Your task to perform on an android device: delete browsing data in the chrome app Image 0: 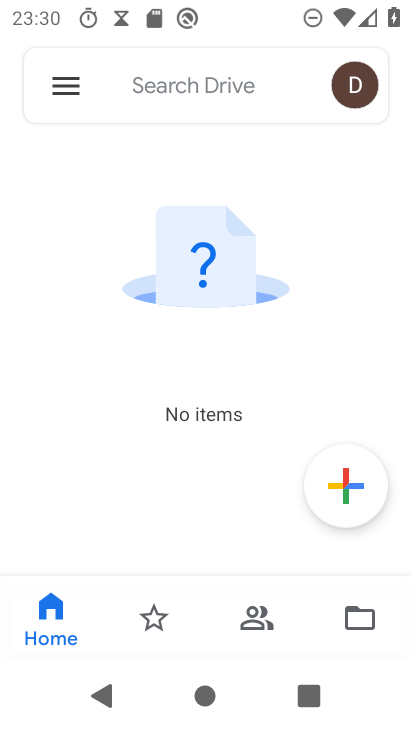
Step 0: press home button
Your task to perform on an android device: delete browsing data in the chrome app Image 1: 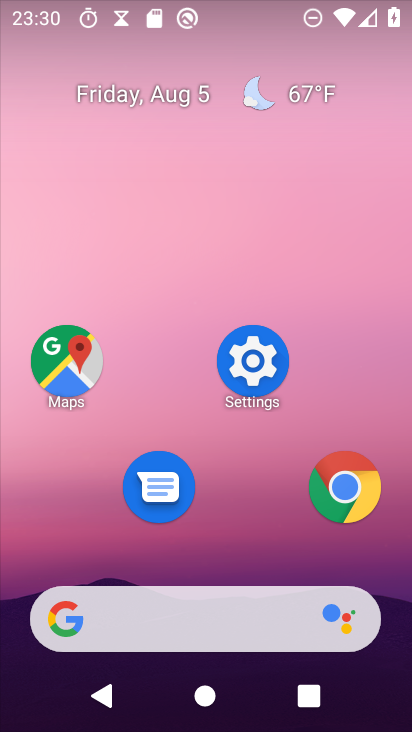
Step 1: click (341, 491)
Your task to perform on an android device: delete browsing data in the chrome app Image 2: 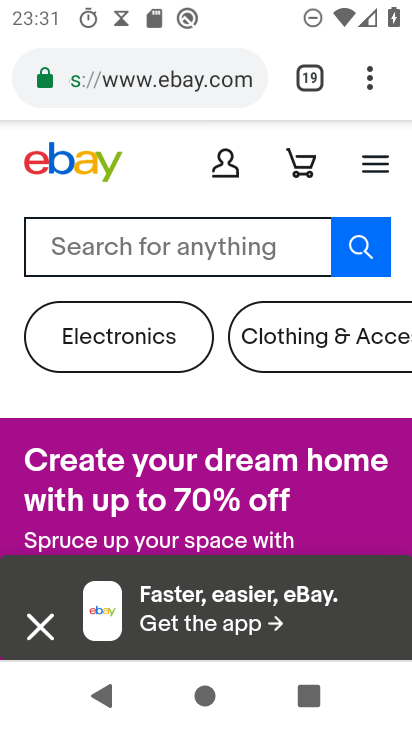
Step 2: drag from (367, 80) to (237, 552)
Your task to perform on an android device: delete browsing data in the chrome app Image 3: 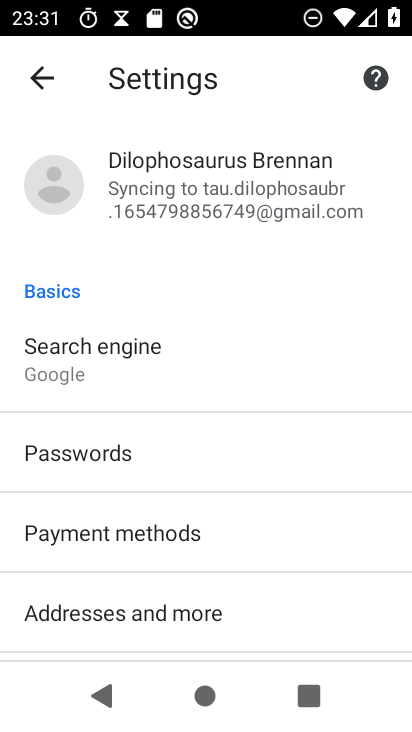
Step 3: drag from (274, 587) to (377, 283)
Your task to perform on an android device: delete browsing data in the chrome app Image 4: 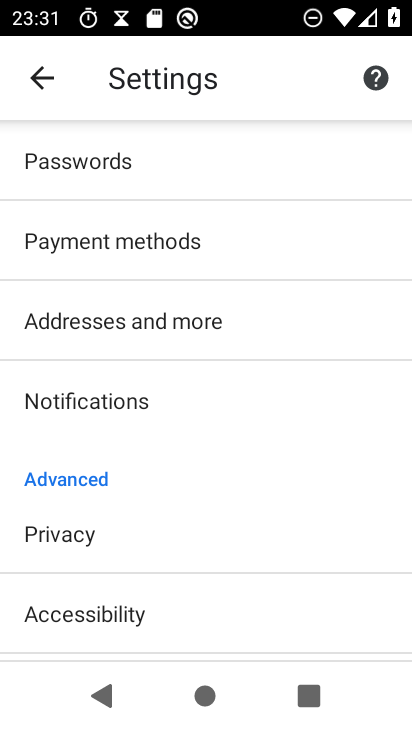
Step 4: click (96, 530)
Your task to perform on an android device: delete browsing data in the chrome app Image 5: 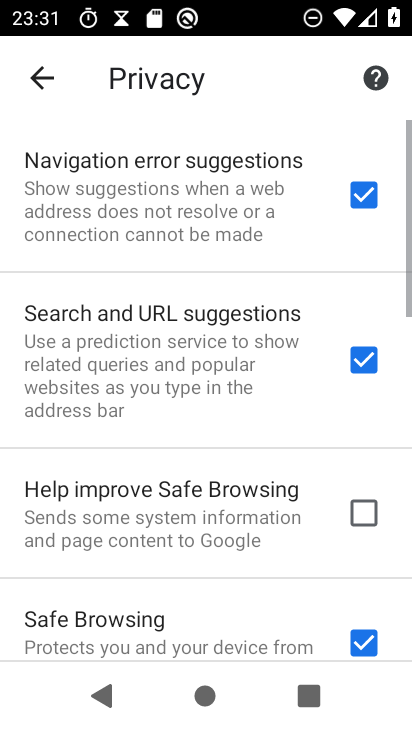
Step 5: drag from (214, 589) to (328, 159)
Your task to perform on an android device: delete browsing data in the chrome app Image 6: 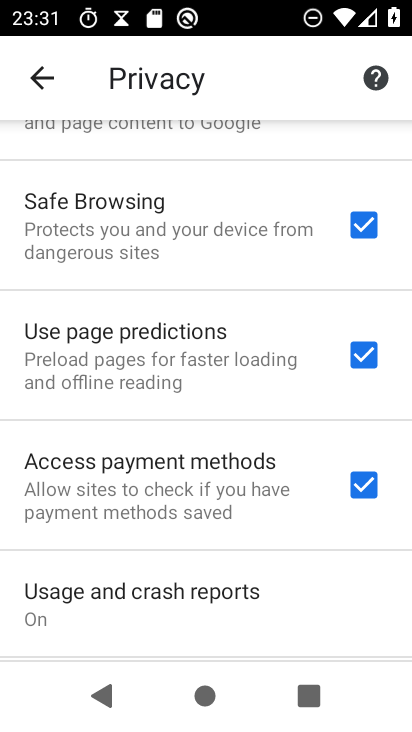
Step 6: drag from (272, 588) to (363, 138)
Your task to perform on an android device: delete browsing data in the chrome app Image 7: 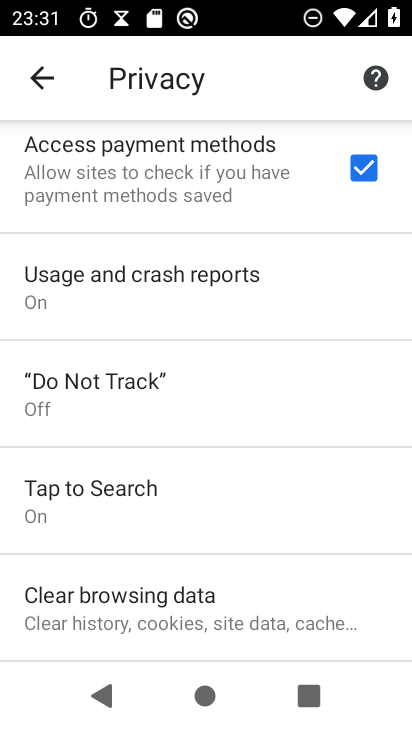
Step 7: click (198, 596)
Your task to perform on an android device: delete browsing data in the chrome app Image 8: 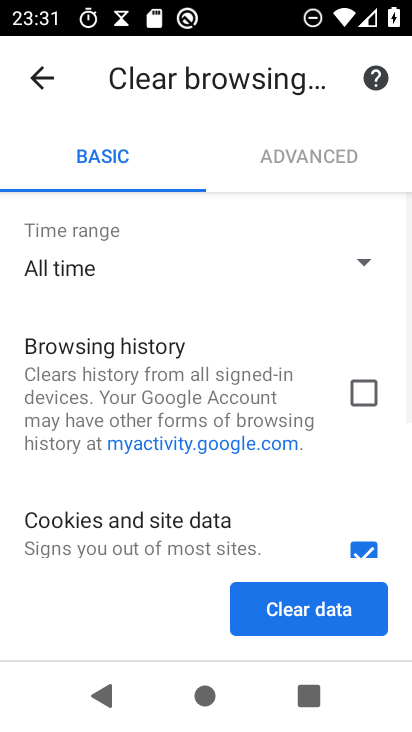
Step 8: click (368, 384)
Your task to perform on an android device: delete browsing data in the chrome app Image 9: 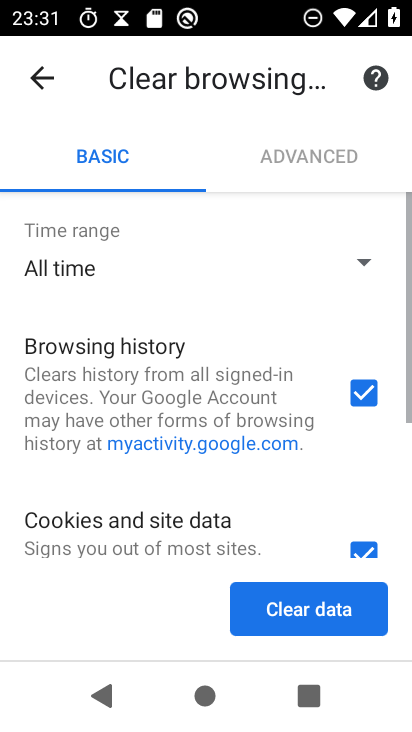
Step 9: drag from (182, 583) to (328, 215)
Your task to perform on an android device: delete browsing data in the chrome app Image 10: 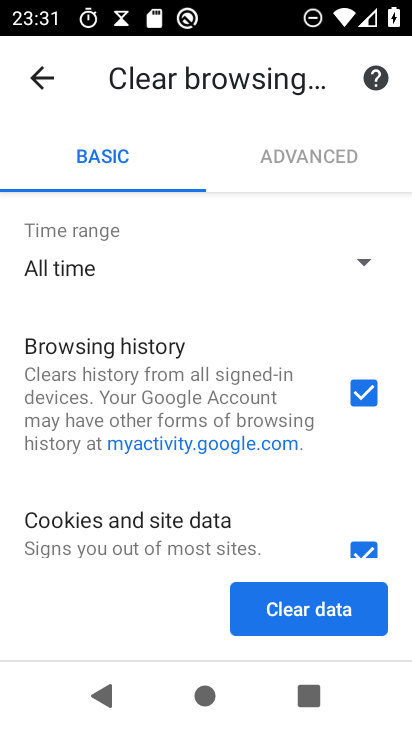
Step 10: drag from (290, 507) to (371, 245)
Your task to perform on an android device: delete browsing data in the chrome app Image 11: 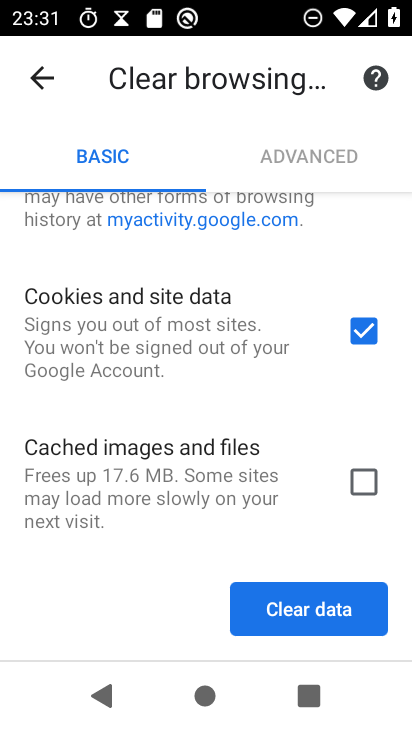
Step 11: click (370, 475)
Your task to perform on an android device: delete browsing data in the chrome app Image 12: 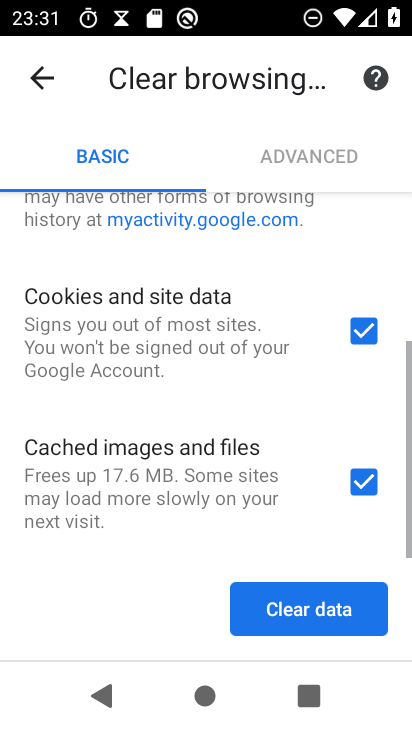
Step 12: click (331, 608)
Your task to perform on an android device: delete browsing data in the chrome app Image 13: 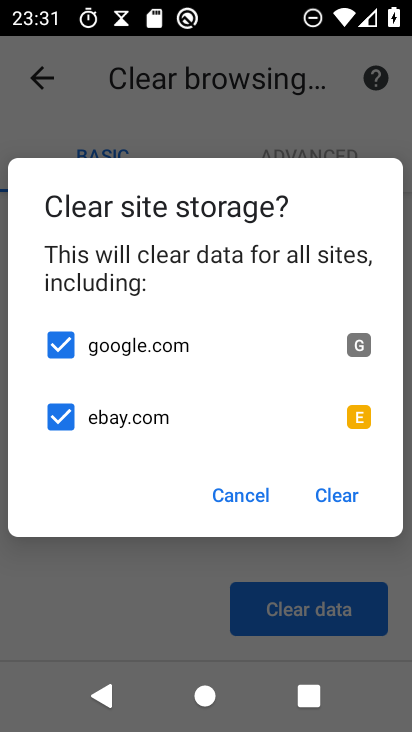
Step 13: click (338, 490)
Your task to perform on an android device: delete browsing data in the chrome app Image 14: 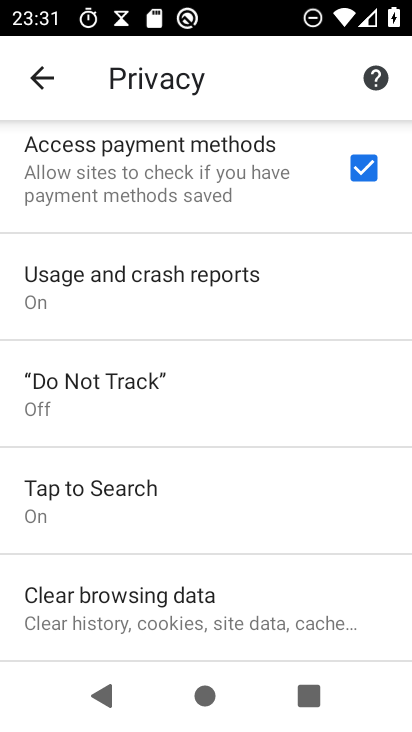
Step 14: task complete